Your task to perform on an android device: What's the weather today? Image 0: 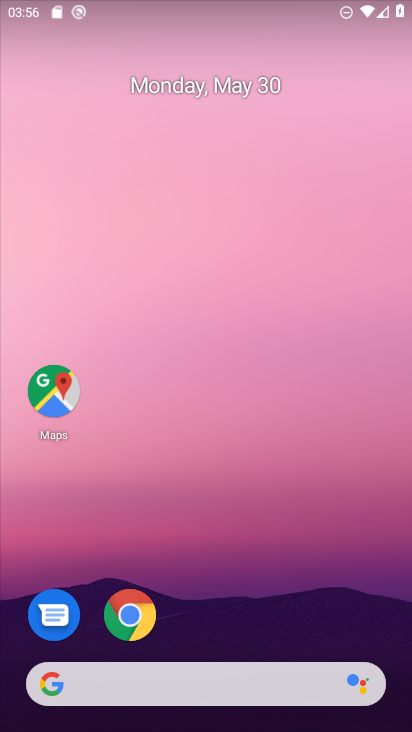
Step 0: drag from (259, 586) to (181, 38)
Your task to perform on an android device: What's the weather today? Image 1: 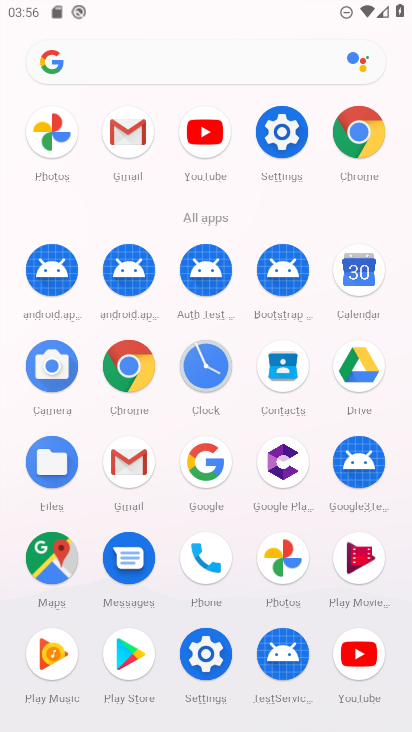
Step 1: click (201, 458)
Your task to perform on an android device: What's the weather today? Image 2: 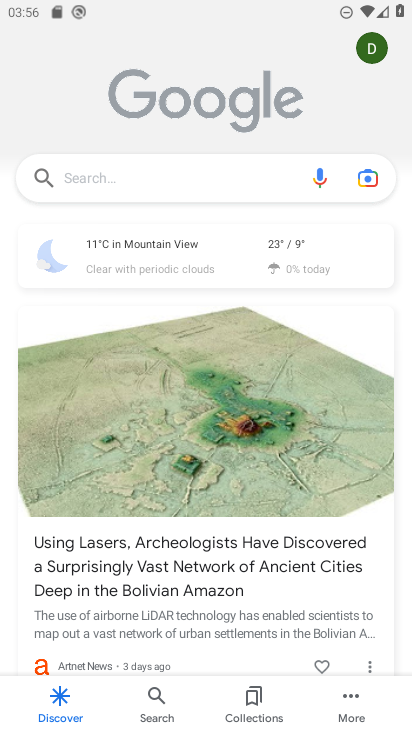
Step 2: click (172, 258)
Your task to perform on an android device: What's the weather today? Image 3: 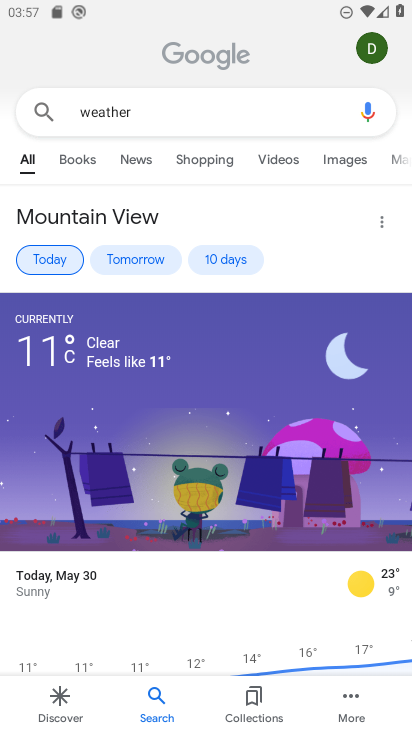
Step 3: task complete